Your task to perform on an android device: turn off notifications in google photos Image 0: 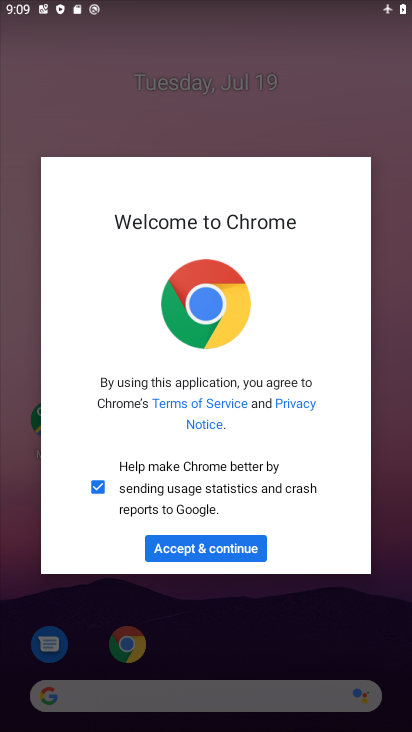
Step 0: press home button
Your task to perform on an android device: turn off notifications in google photos Image 1: 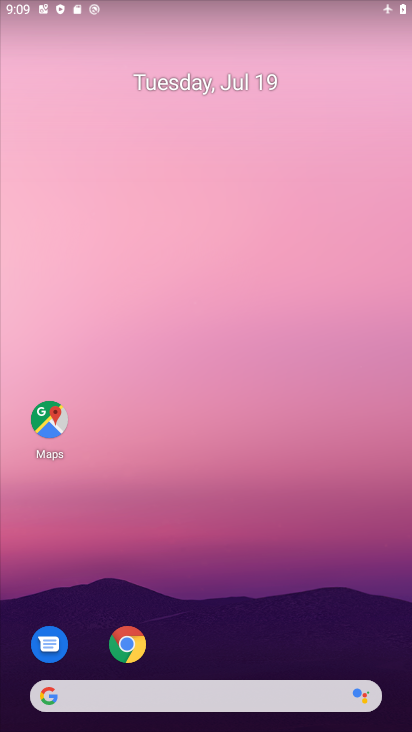
Step 1: drag from (239, 660) to (104, 7)
Your task to perform on an android device: turn off notifications in google photos Image 2: 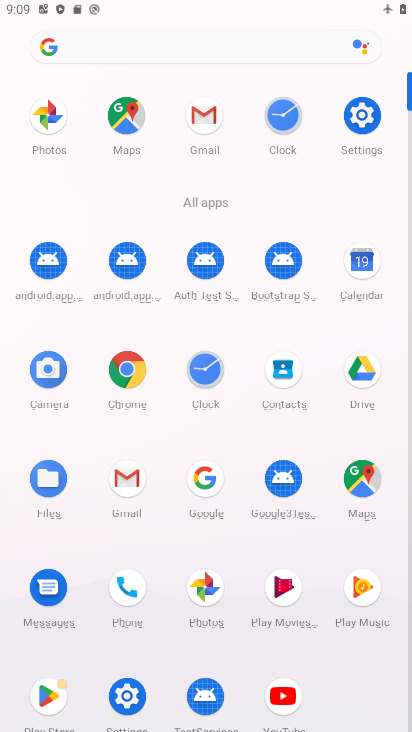
Step 2: click (208, 601)
Your task to perform on an android device: turn off notifications in google photos Image 3: 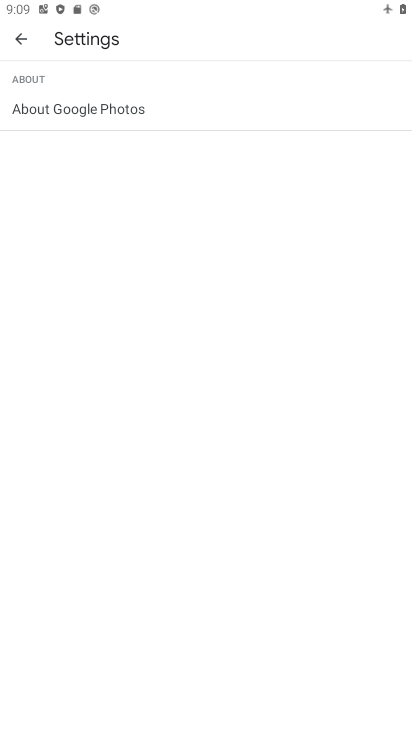
Step 3: click (22, 38)
Your task to perform on an android device: turn off notifications in google photos Image 4: 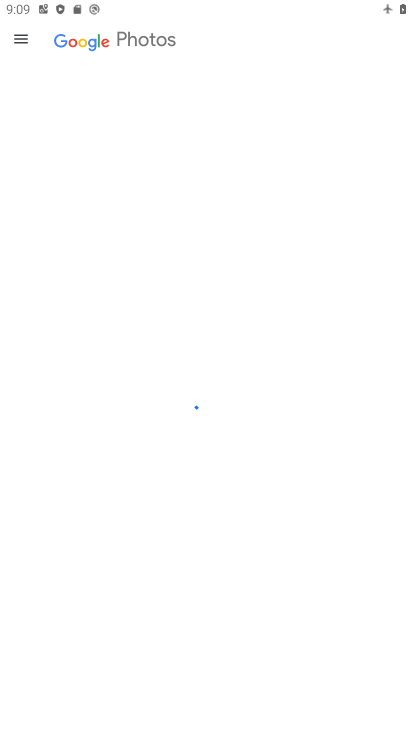
Step 4: click (22, 34)
Your task to perform on an android device: turn off notifications in google photos Image 5: 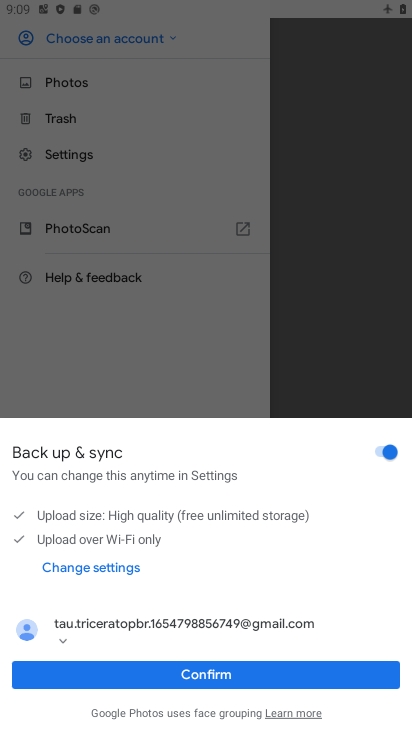
Step 5: click (158, 673)
Your task to perform on an android device: turn off notifications in google photos Image 6: 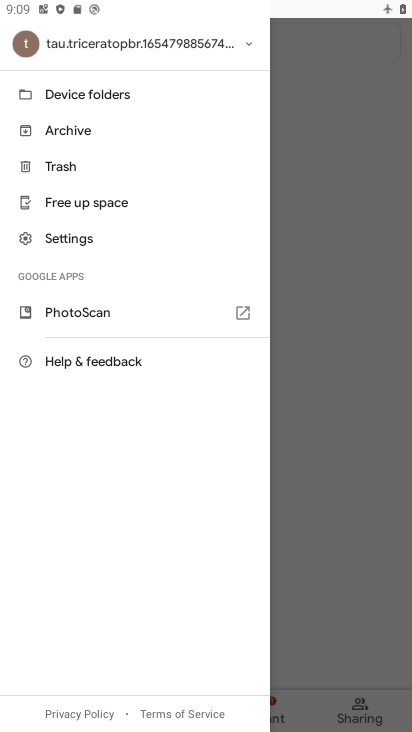
Step 6: click (67, 232)
Your task to perform on an android device: turn off notifications in google photos Image 7: 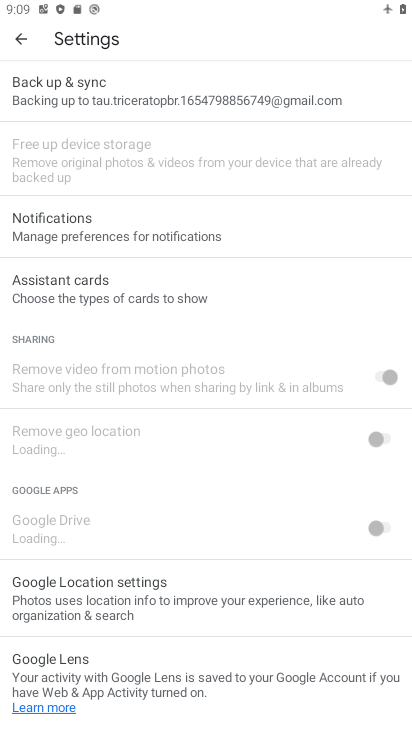
Step 7: click (67, 232)
Your task to perform on an android device: turn off notifications in google photos Image 8: 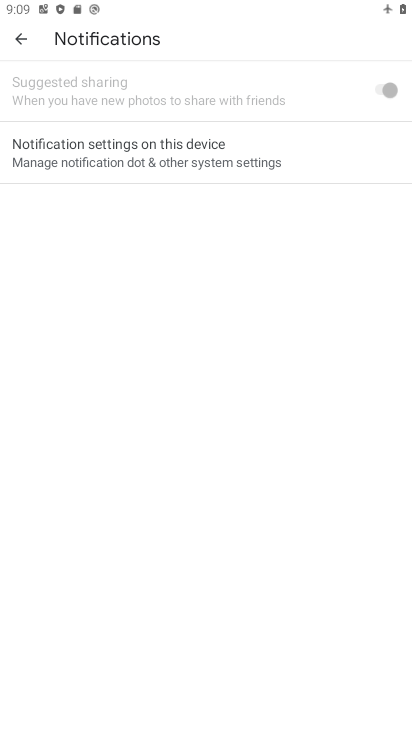
Step 8: click (264, 144)
Your task to perform on an android device: turn off notifications in google photos Image 9: 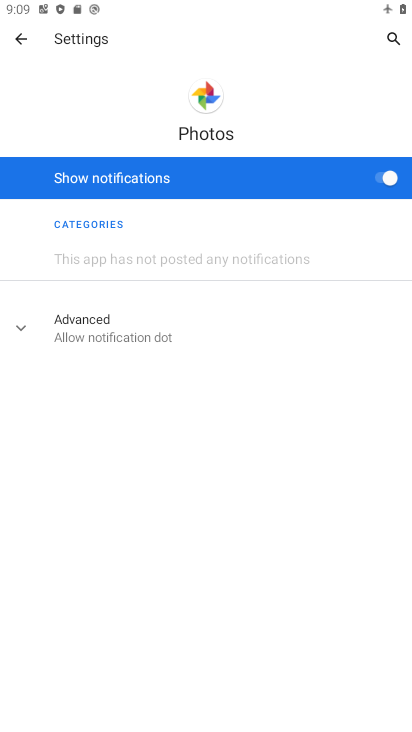
Step 9: click (391, 181)
Your task to perform on an android device: turn off notifications in google photos Image 10: 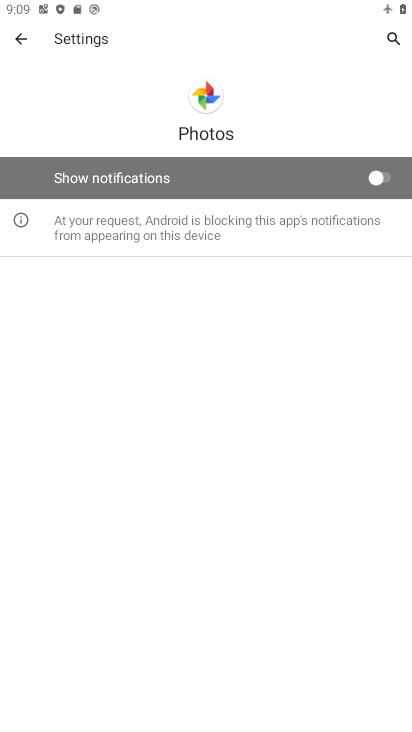
Step 10: task complete